Your task to perform on an android device: Do I have any events this weekend? Image 0: 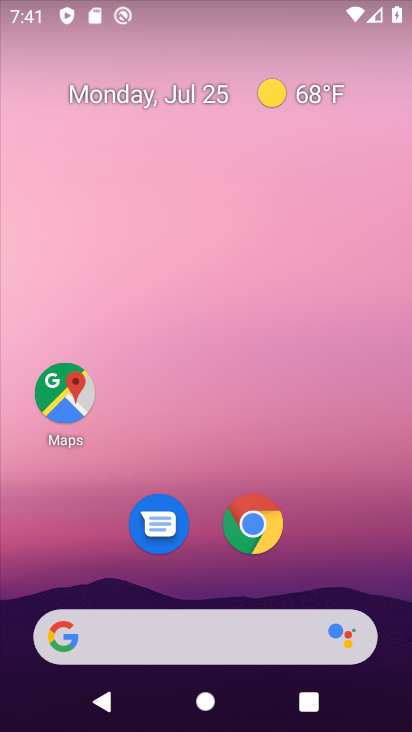
Step 0: drag from (355, 528) to (300, 1)
Your task to perform on an android device: Do I have any events this weekend? Image 1: 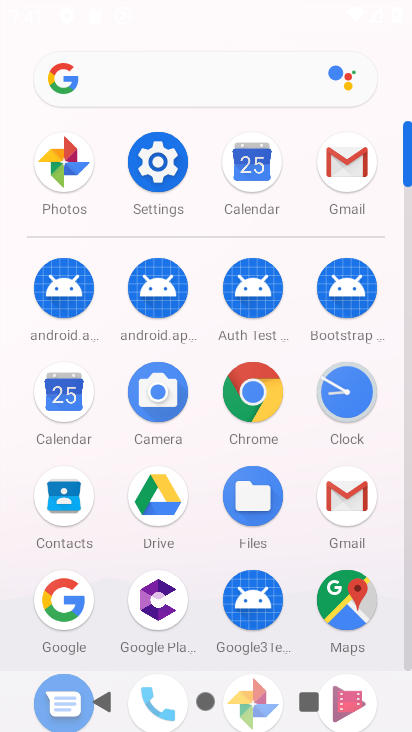
Step 1: click (257, 162)
Your task to perform on an android device: Do I have any events this weekend? Image 2: 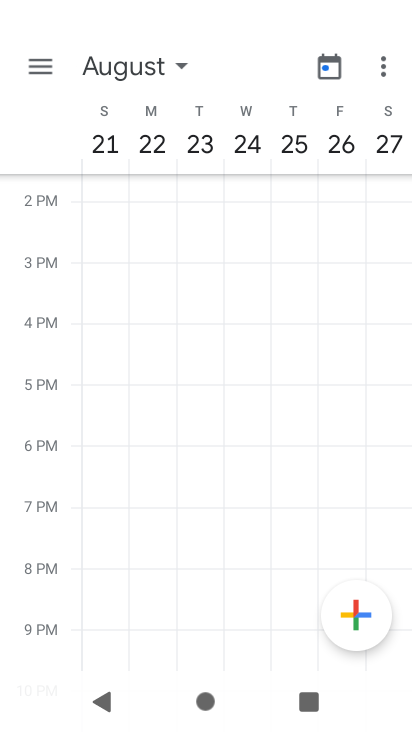
Step 2: task complete